Your task to perform on an android device: Is it going to rain tomorrow? Image 0: 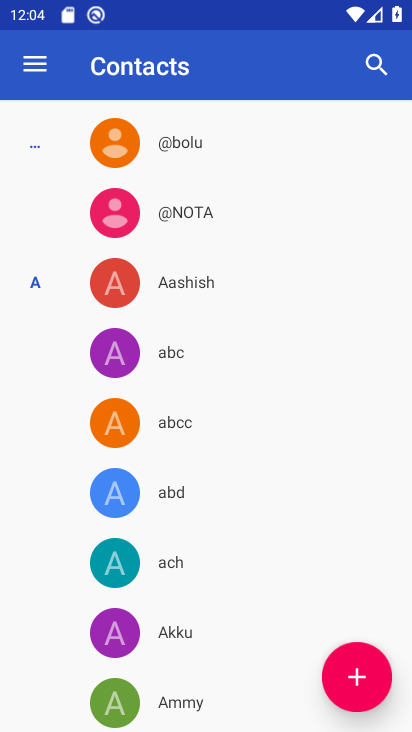
Step 0: press back button
Your task to perform on an android device: Is it going to rain tomorrow? Image 1: 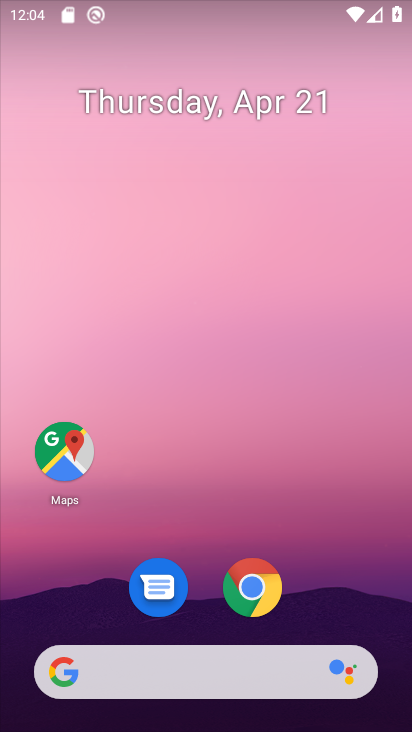
Step 1: drag from (35, 312) to (329, 304)
Your task to perform on an android device: Is it going to rain tomorrow? Image 2: 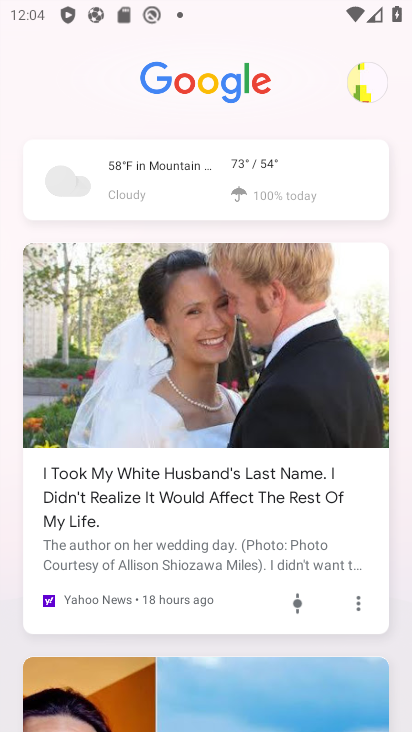
Step 2: click (238, 186)
Your task to perform on an android device: Is it going to rain tomorrow? Image 3: 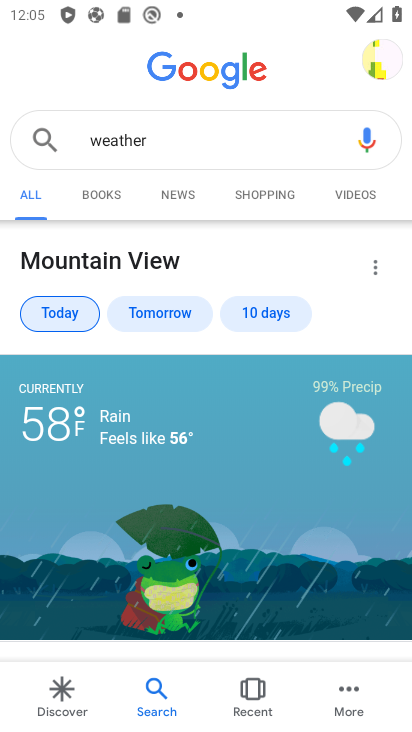
Step 3: drag from (221, 472) to (301, 93)
Your task to perform on an android device: Is it going to rain tomorrow? Image 4: 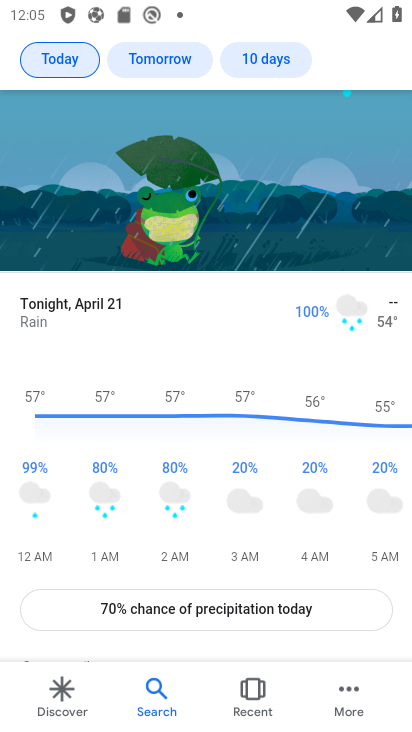
Step 4: click (154, 59)
Your task to perform on an android device: Is it going to rain tomorrow? Image 5: 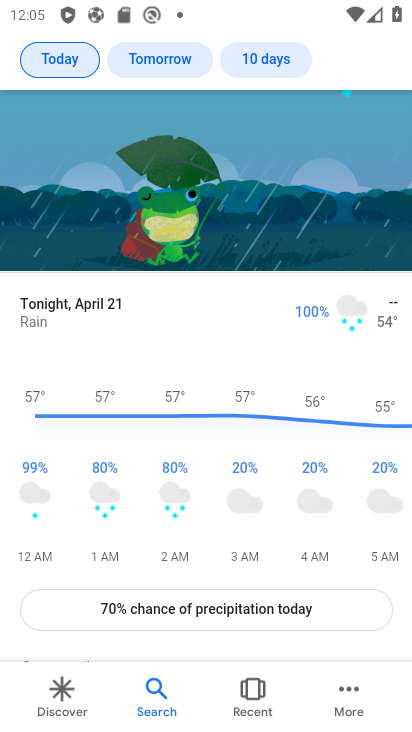
Step 5: click (174, 58)
Your task to perform on an android device: Is it going to rain tomorrow? Image 6: 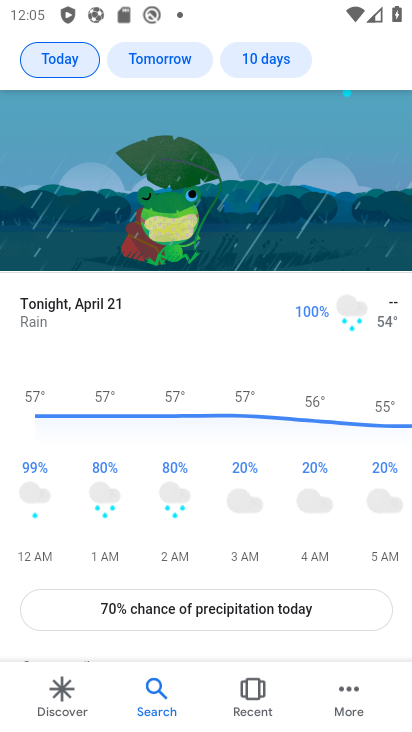
Step 6: click (294, 193)
Your task to perform on an android device: Is it going to rain tomorrow? Image 7: 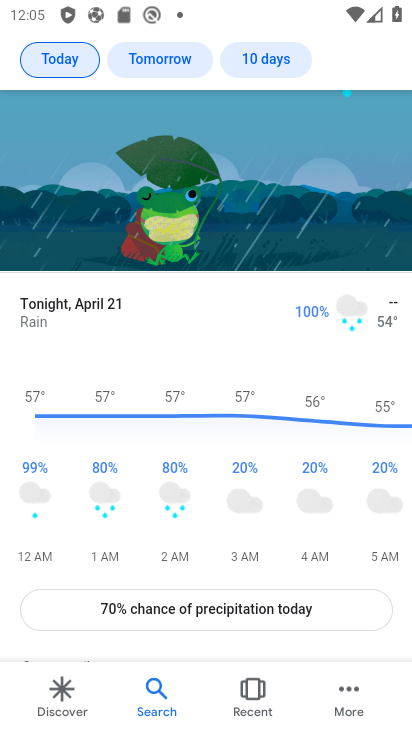
Step 7: click (245, 378)
Your task to perform on an android device: Is it going to rain tomorrow? Image 8: 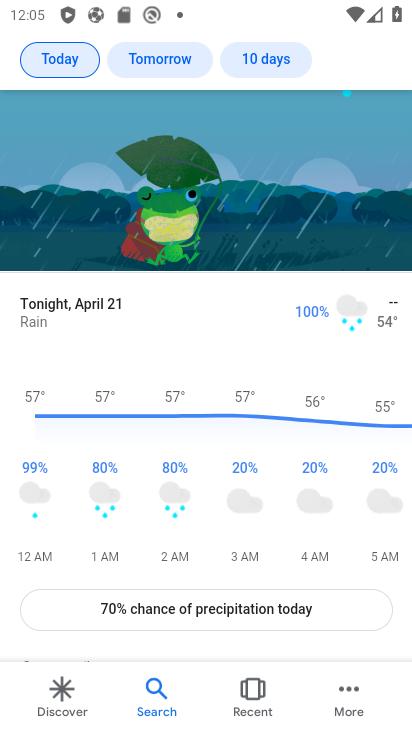
Step 8: click (229, 179)
Your task to perform on an android device: Is it going to rain tomorrow? Image 9: 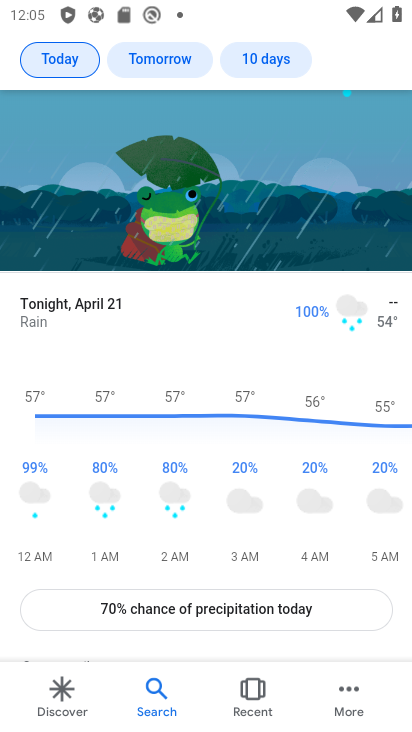
Step 9: drag from (223, 204) to (184, 528)
Your task to perform on an android device: Is it going to rain tomorrow? Image 10: 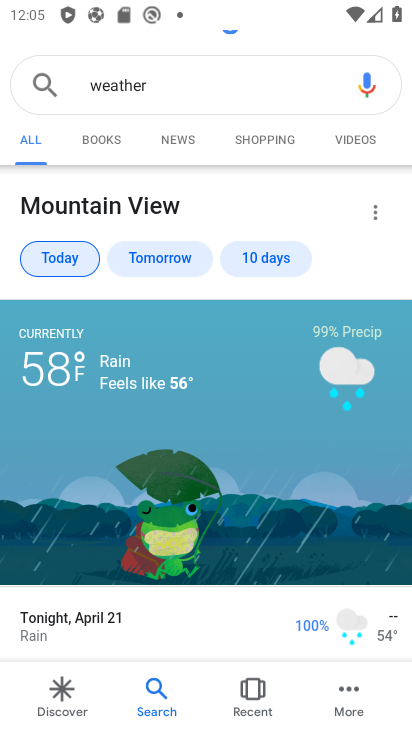
Step 10: click (260, 377)
Your task to perform on an android device: Is it going to rain tomorrow? Image 11: 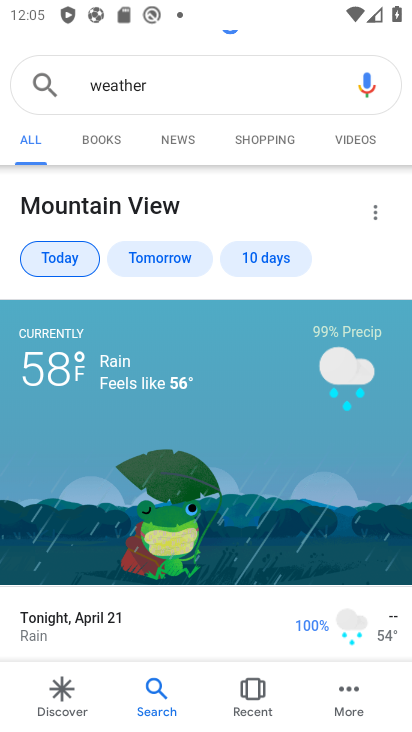
Step 11: click (373, 216)
Your task to perform on an android device: Is it going to rain tomorrow? Image 12: 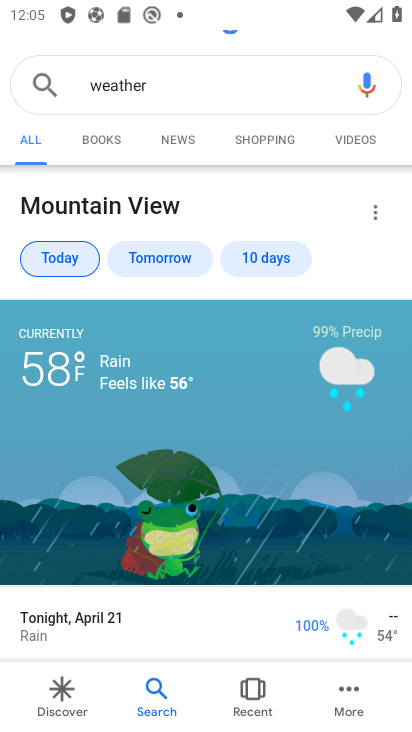
Step 12: click (303, 408)
Your task to perform on an android device: Is it going to rain tomorrow? Image 13: 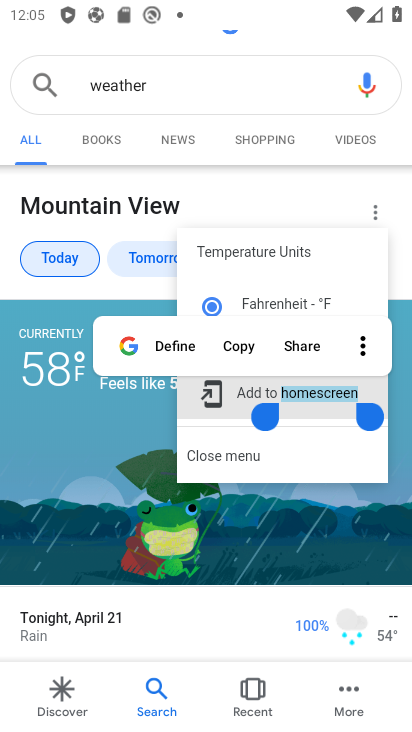
Step 13: click (266, 545)
Your task to perform on an android device: Is it going to rain tomorrow? Image 14: 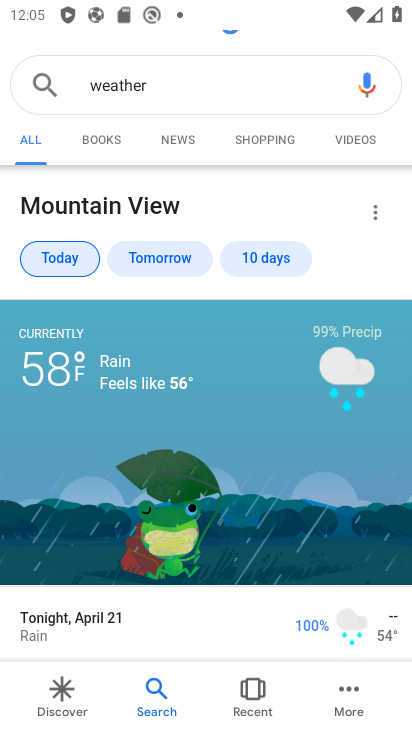
Step 14: click (200, 429)
Your task to perform on an android device: Is it going to rain tomorrow? Image 15: 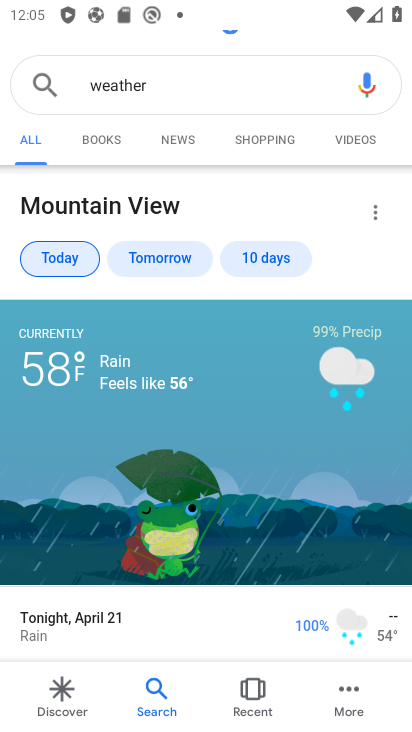
Step 15: click (168, 259)
Your task to perform on an android device: Is it going to rain tomorrow? Image 16: 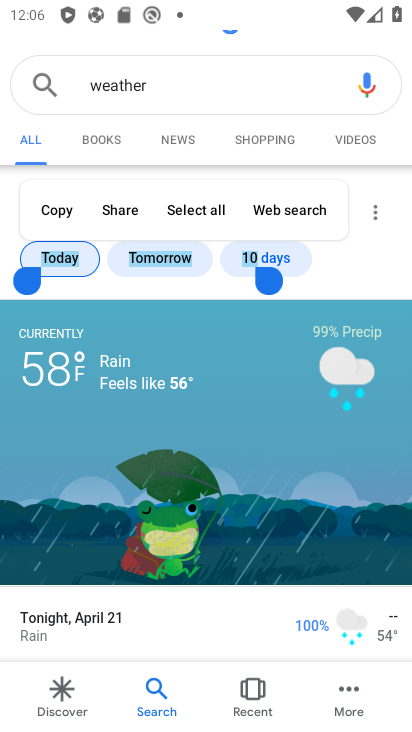
Step 16: click (202, 278)
Your task to perform on an android device: Is it going to rain tomorrow? Image 17: 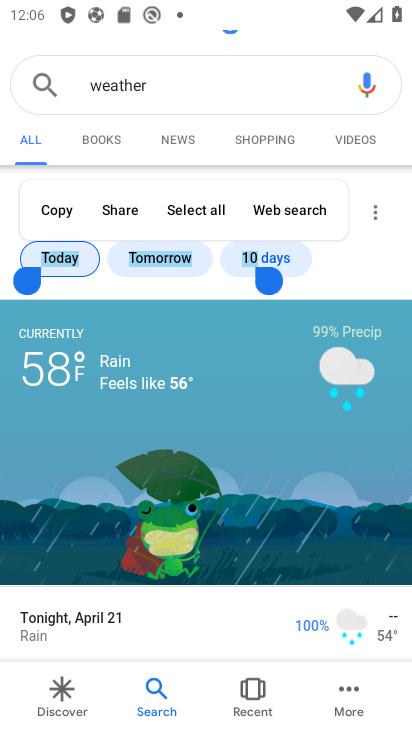
Step 17: click (195, 271)
Your task to perform on an android device: Is it going to rain tomorrow? Image 18: 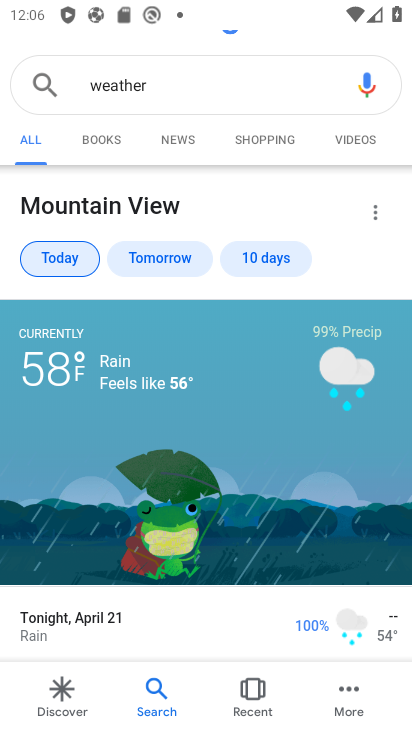
Step 18: click (217, 91)
Your task to perform on an android device: Is it going to rain tomorrow? Image 19: 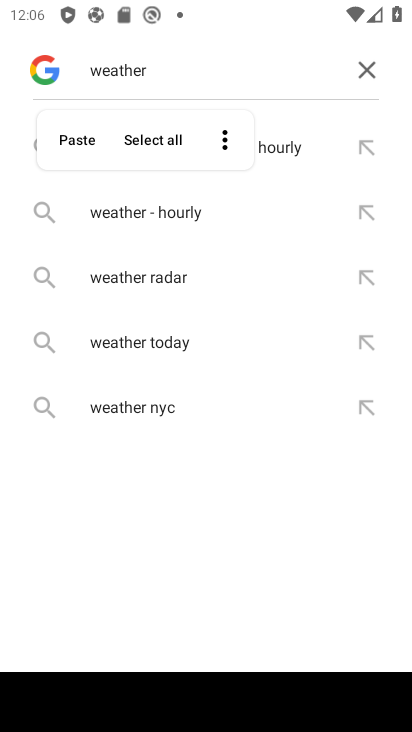
Step 19: click (366, 71)
Your task to perform on an android device: Is it going to rain tomorrow? Image 20: 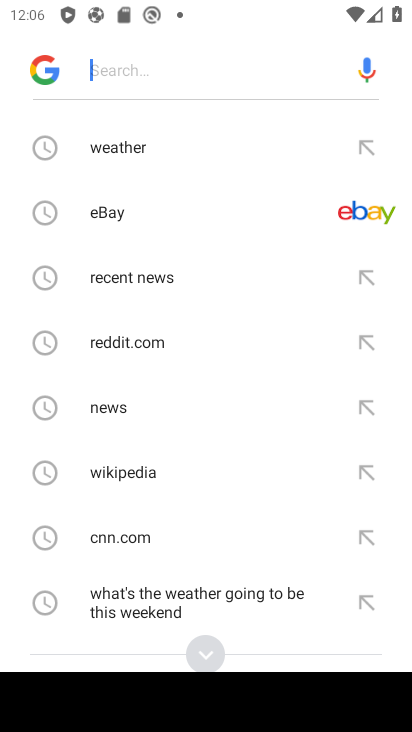
Step 20: click (187, 144)
Your task to perform on an android device: Is it going to rain tomorrow? Image 21: 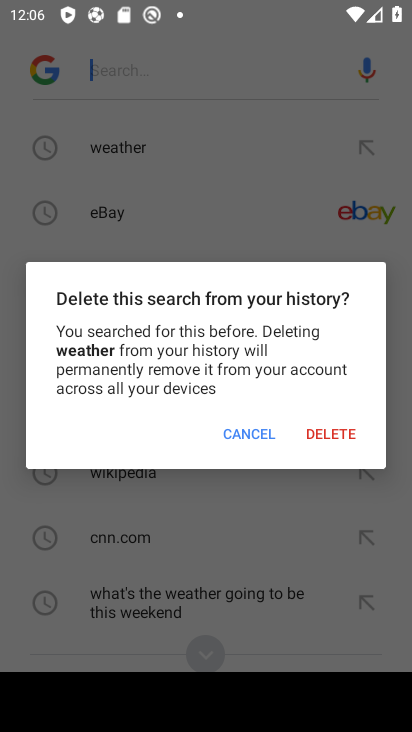
Step 21: click (268, 434)
Your task to perform on an android device: Is it going to rain tomorrow? Image 22: 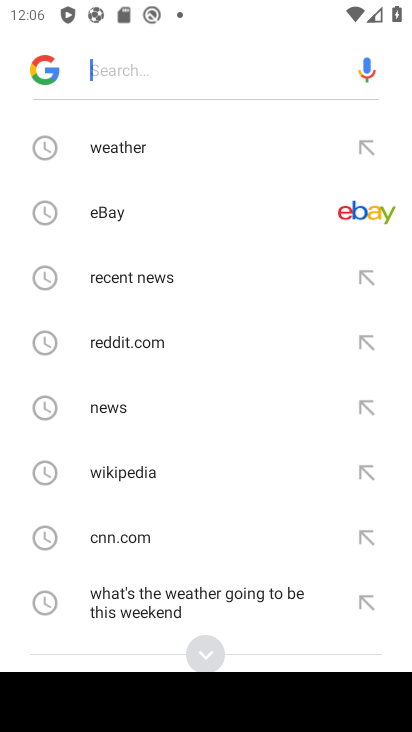
Step 22: click (259, 145)
Your task to perform on an android device: Is it going to rain tomorrow? Image 23: 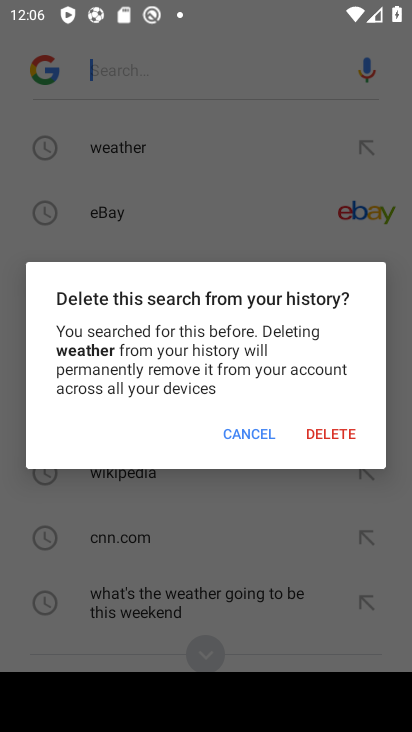
Step 23: click (248, 433)
Your task to perform on an android device: Is it going to rain tomorrow? Image 24: 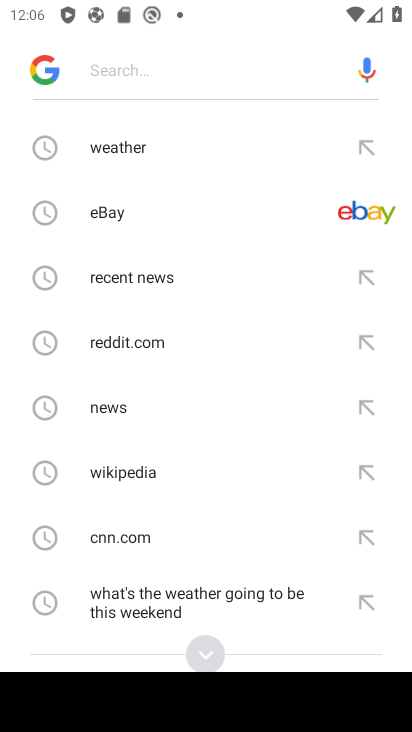
Step 24: click (281, 147)
Your task to perform on an android device: Is it going to rain tomorrow? Image 25: 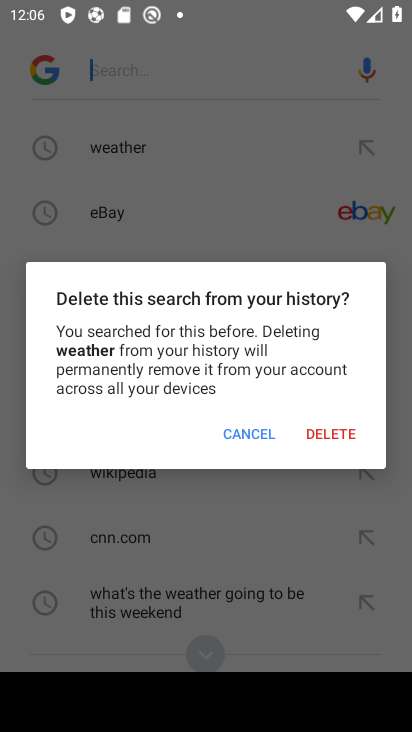
Step 25: click (247, 431)
Your task to perform on an android device: Is it going to rain tomorrow? Image 26: 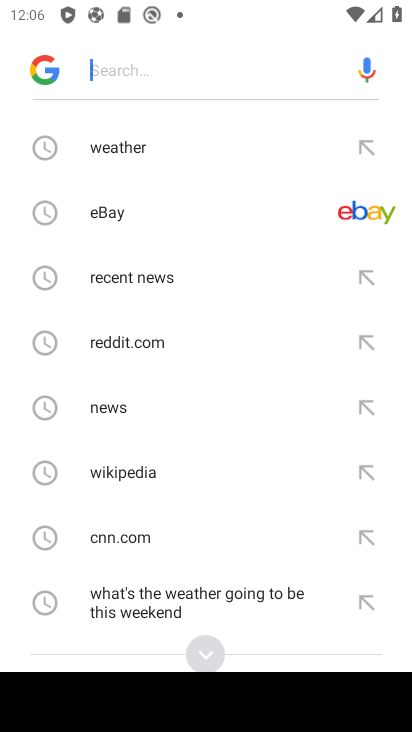
Step 26: click (376, 148)
Your task to perform on an android device: Is it going to rain tomorrow? Image 27: 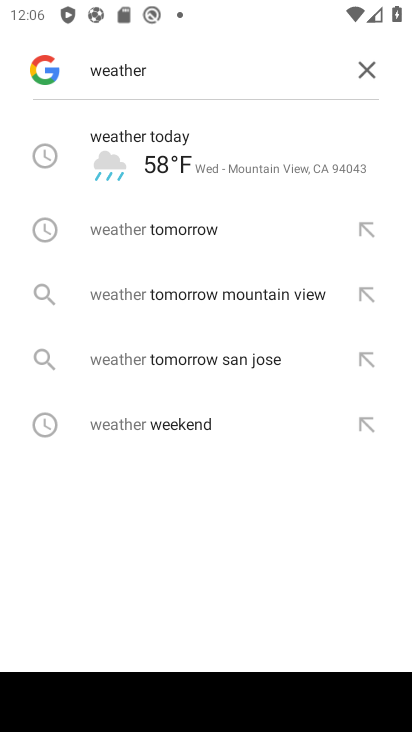
Step 27: click (256, 151)
Your task to perform on an android device: Is it going to rain tomorrow? Image 28: 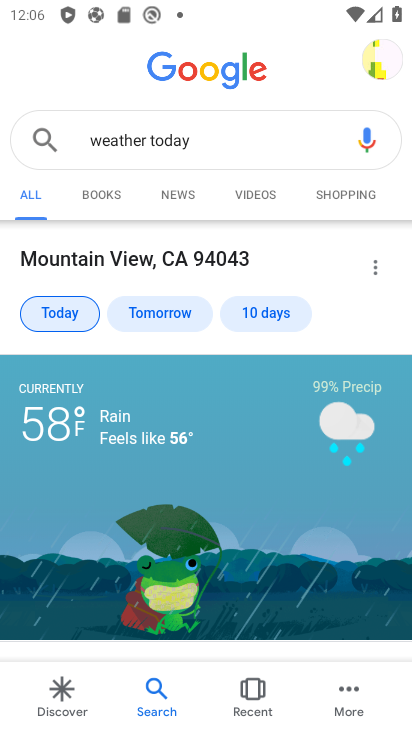
Step 28: click (151, 317)
Your task to perform on an android device: Is it going to rain tomorrow? Image 29: 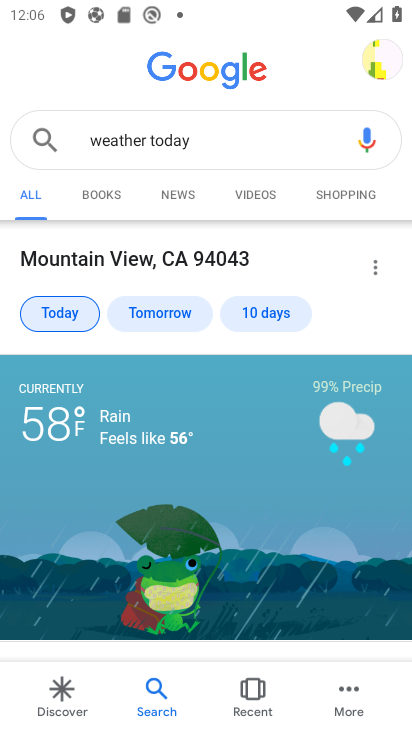
Step 29: click (248, 136)
Your task to perform on an android device: Is it going to rain tomorrow? Image 30: 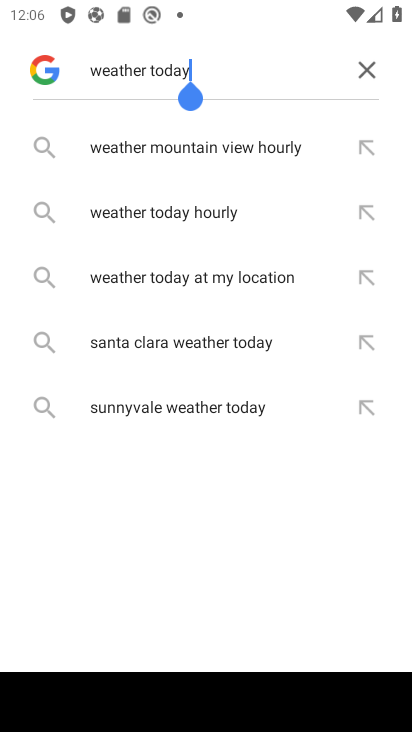
Step 30: click (364, 66)
Your task to perform on an android device: Is it going to rain tomorrow? Image 31: 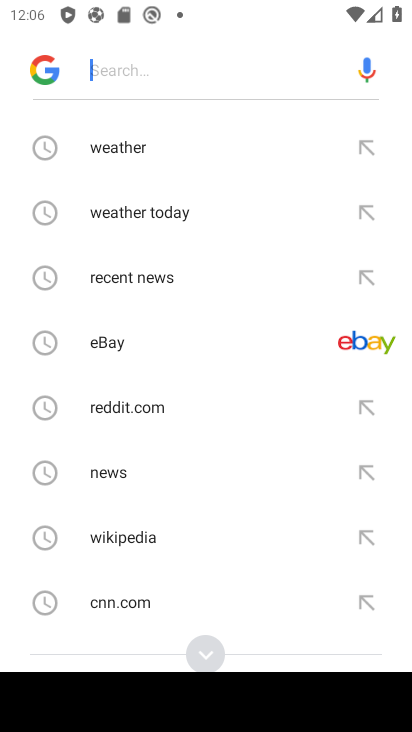
Step 31: click (360, 145)
Your task to perform on an android device: Is it going to rain tomorrow? Image 32: 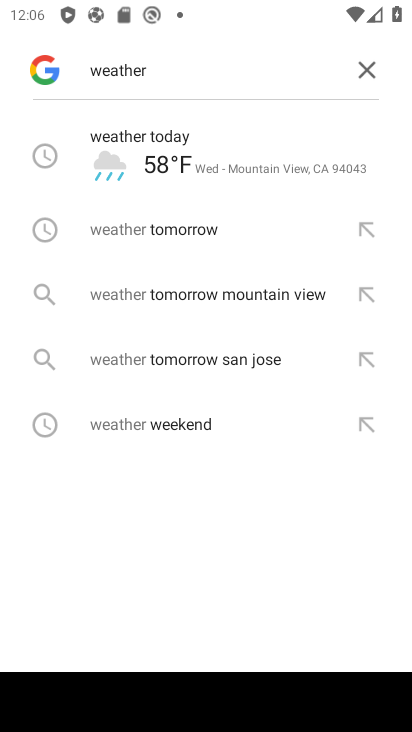
Step 32: click (220, 222)
Your task to perform on an android device: Is it going to rain tomorrow? Image 33: 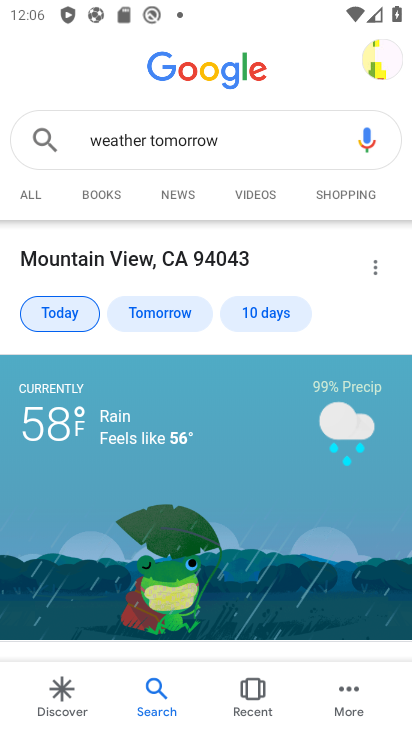
Step 33: click (160, 301)
Your task to perform on an android device: Is it going to rain tomorrow? Image 34: 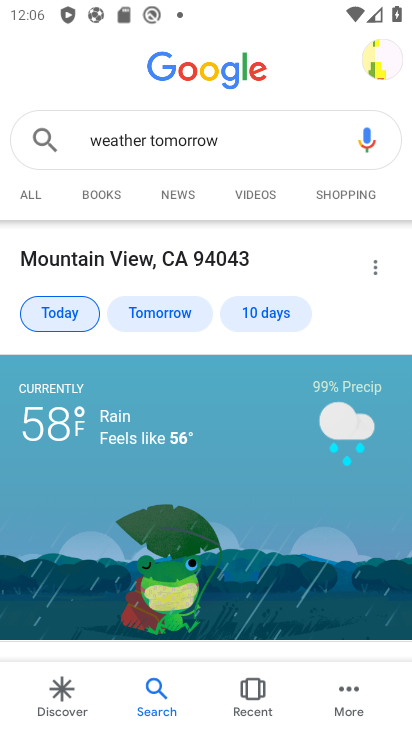
Step 34: click (162, 315)
Your task to perform on an android device: Is it going to rain tomorrow? Image 35: 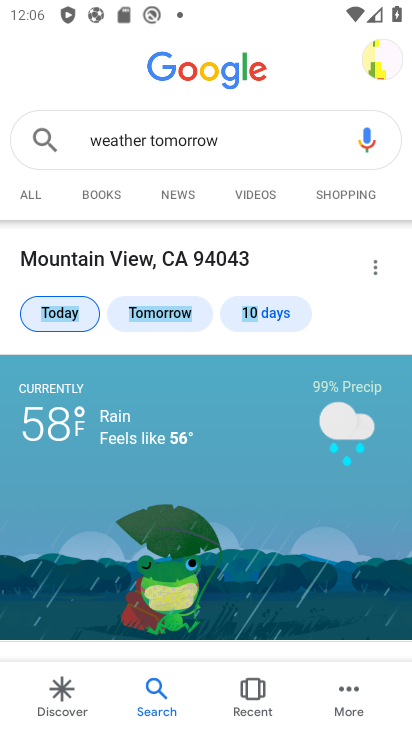
Step 35: drag from (186, 456) to (259, 202)
Your task to perform on an android device: Is it going to rain tomorrow? Image 36: 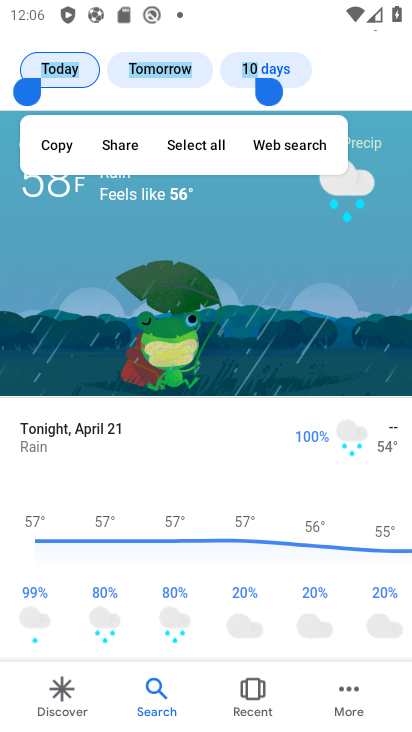
Step 36: click (170, 75)
Your task to perform on an android device: Is it going to rain tomorrow? Image 37: 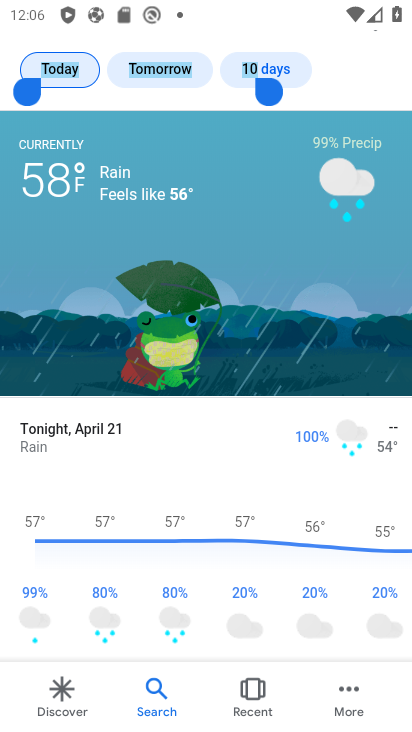
Step 37: click (328, 275)
Your task to perform on an android device: Is it going to rain tomorrow? Image 38: 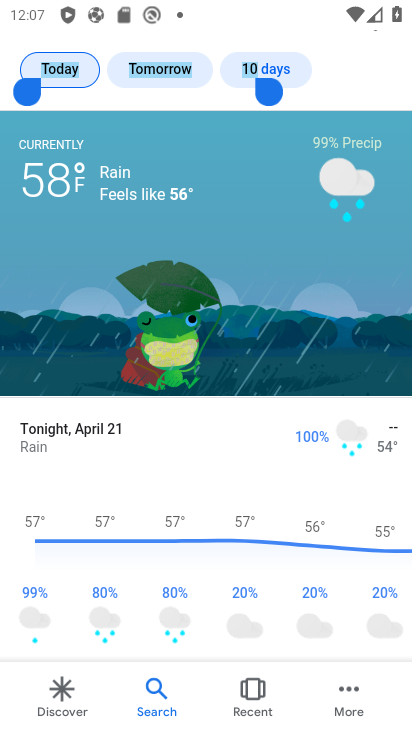
Step 38: click (187, 51)
Your task to perform on an android device: Is it going to rain tomorrow? Image 39: 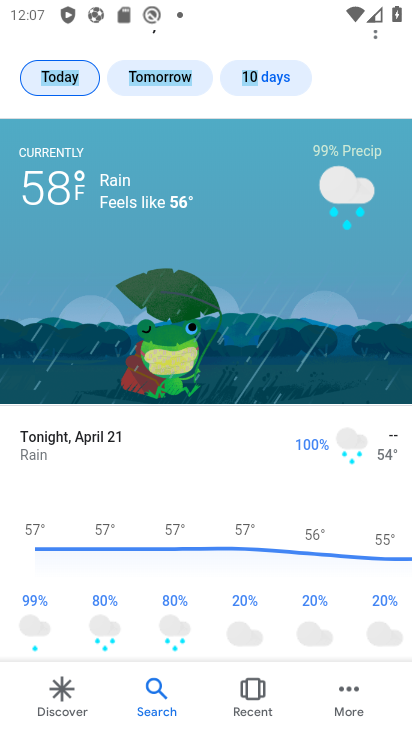
Step 39: click (172, 73)
Your task to perform on an android device: Is it going to rain tomorrow? Image 40: 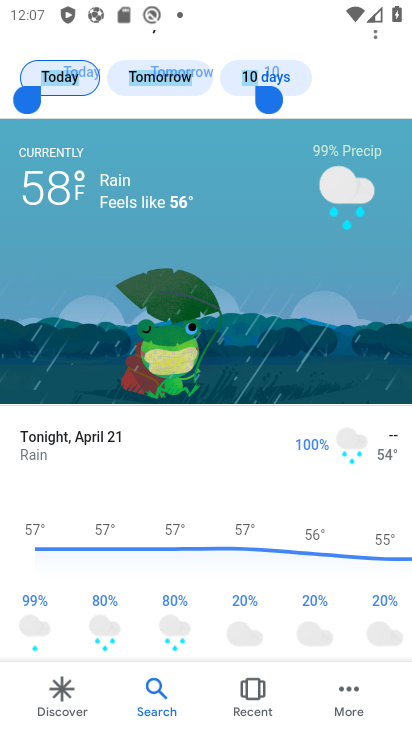
Step 40: click (172, 74)
Your task to perform on an android device: Is it going to rain tomorrow? Image 41: 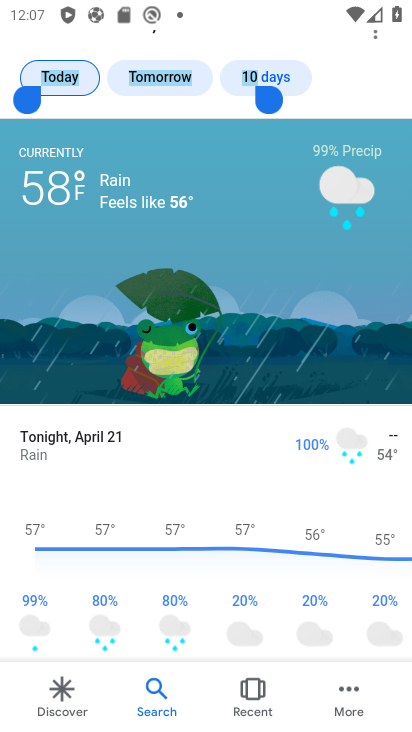
Step 41: click (139, 81)
Your task to perform on an android device: Is it going to rain tomorrow? Image 42: 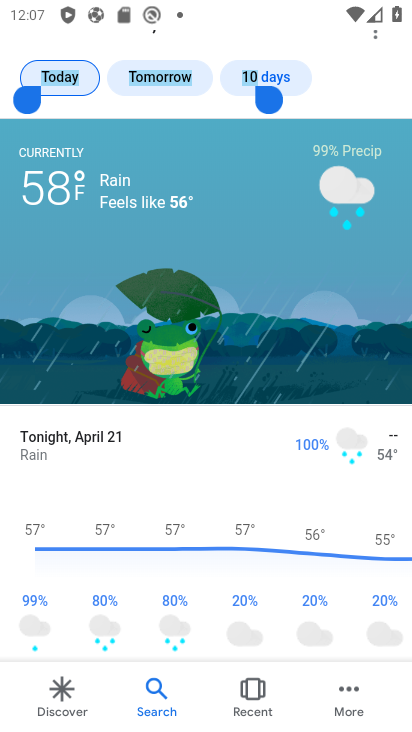
Step 42: click (185, 80)
Your task to perform on an android device: Is it going to rain tomorrow? Image 43: 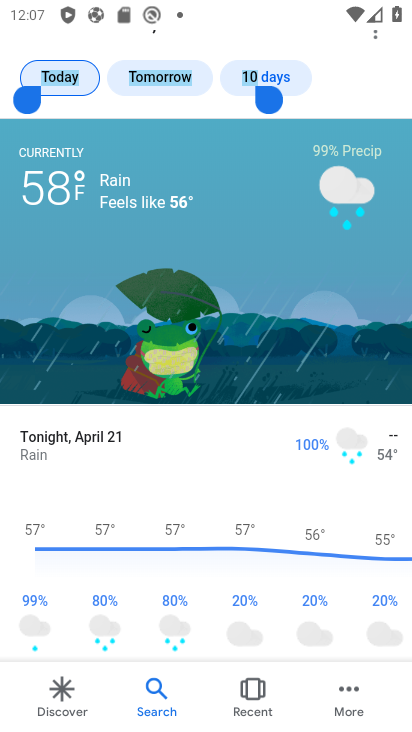
Step 43: task complete